Your task to perform on an android device: check the backup settings in the google photos Image 0: 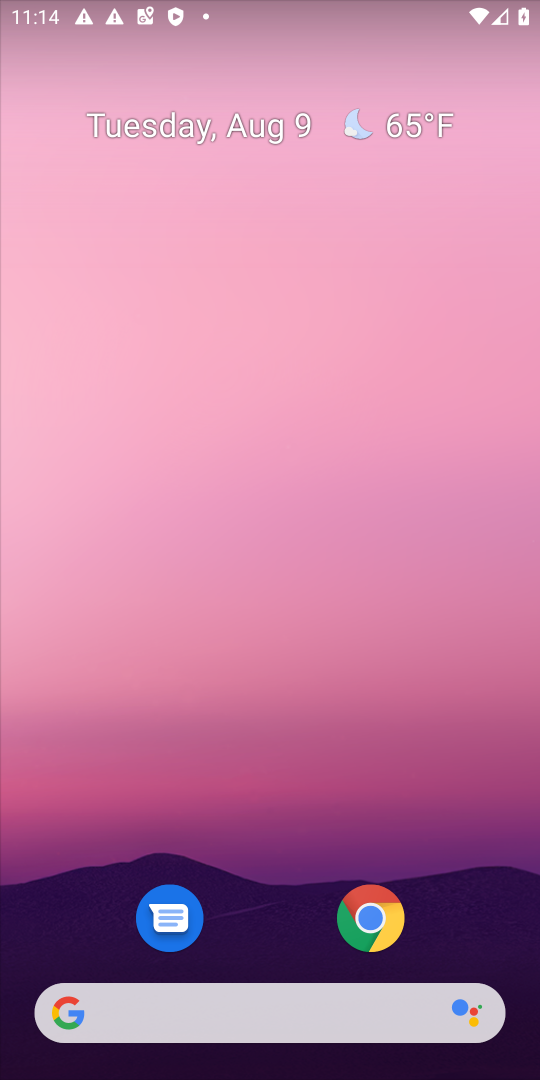
Step 0: drag from (253, 921) to (146, 118)
Your task to perform on an android device: check the backup settings in the google photos Image 1: 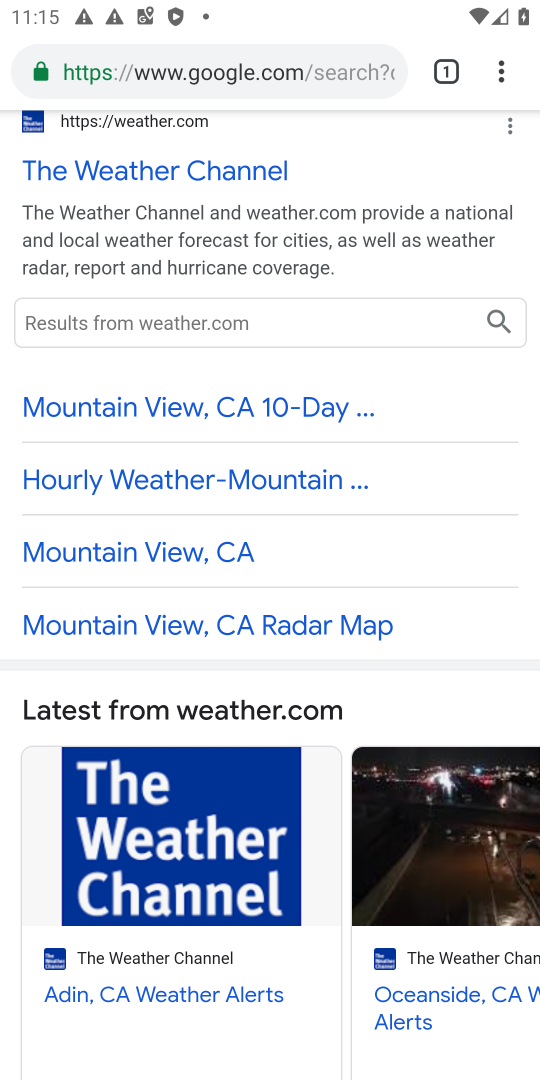
Step 1: press home button
Your task to perform on an android device: check the backup settings in the google photos Image 2: 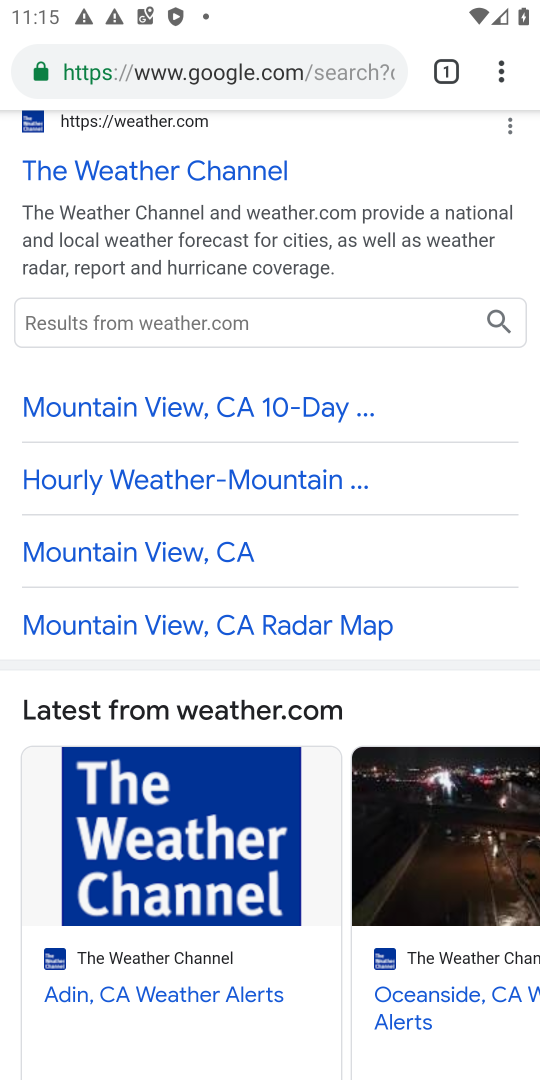
Step 2: press home button
Your task to perform on an android device: check the backup settings in the google photos Image 3: 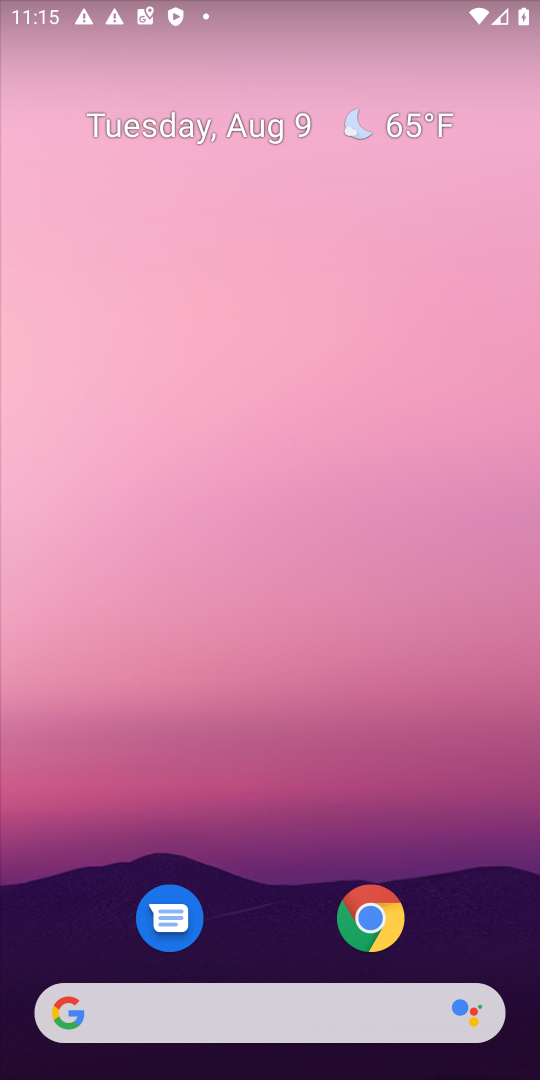
Step 3: drag from (243, 883) to (245, 329)
Your task to perform on an android device: check the backup settings in the google photos Image 4: 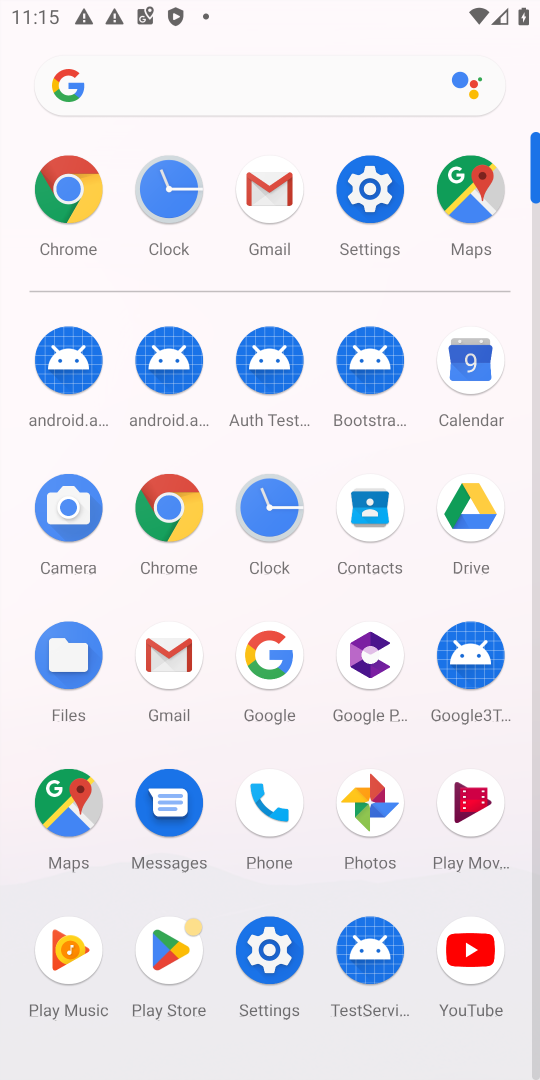
Step 4: click (367, 796)
Your task to perform on an android device: check the backup settings in the google photos Image 5: 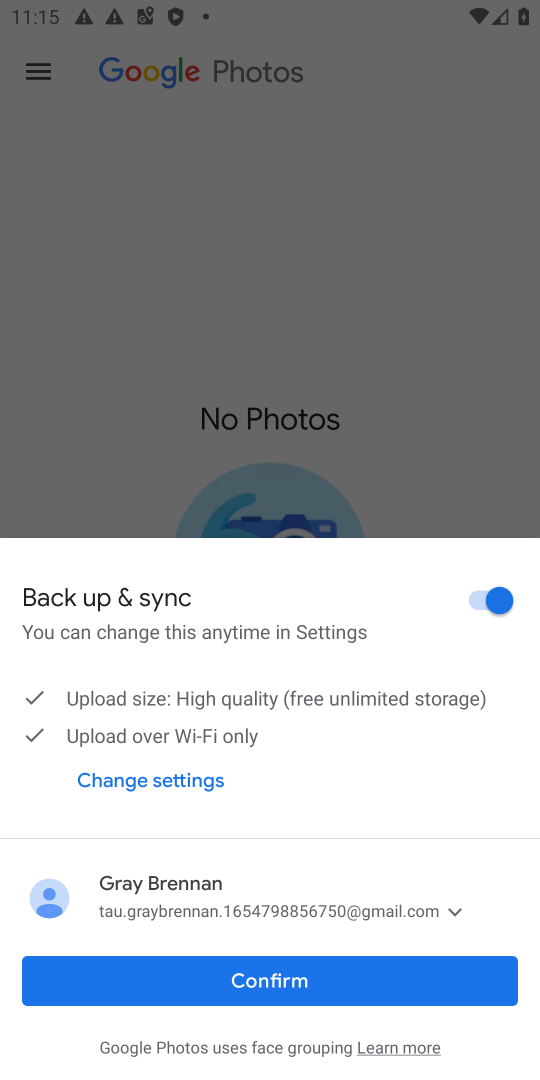
Step 5: click (313, 1001)
Your task to perform on an android device: check the backup settings in the google photos Image 6: 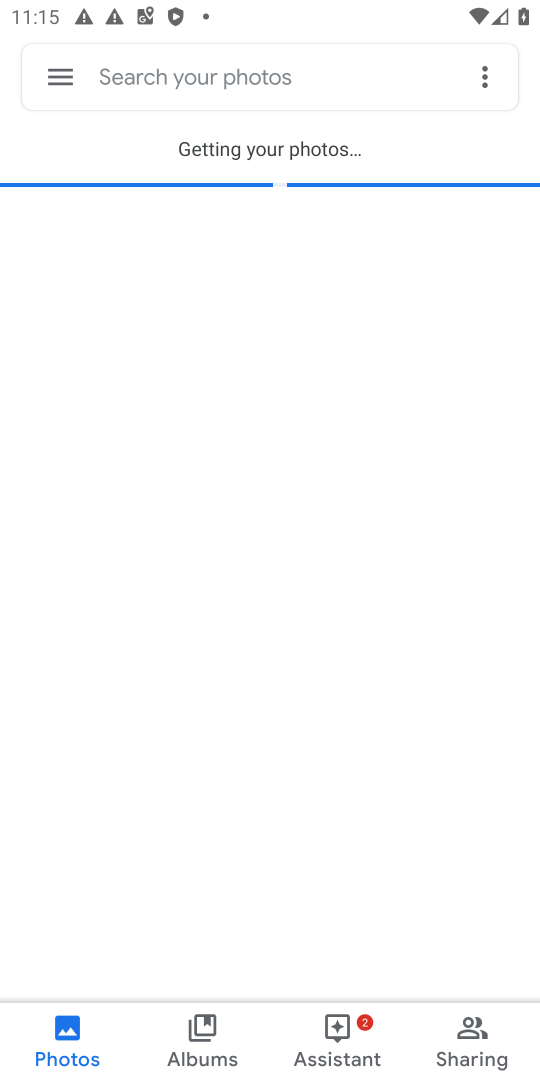
Step 6: click (51, 77)
Your task to perform on an android device: check the backup settings in the google photos Image 7: 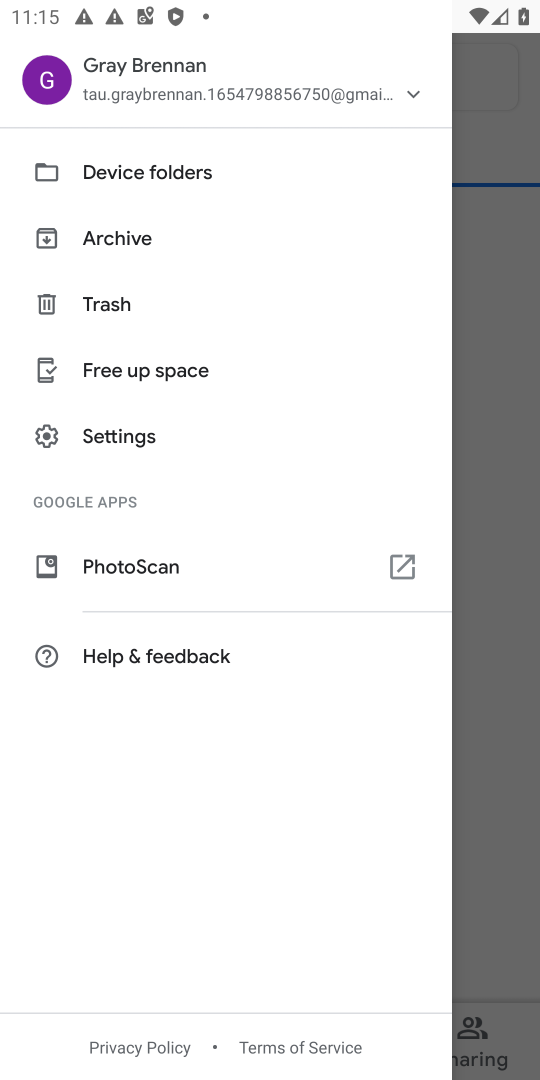
Step 7: click (146, 436)
Your task to perform on an android device: check the backup settings in the google photos Image 8: 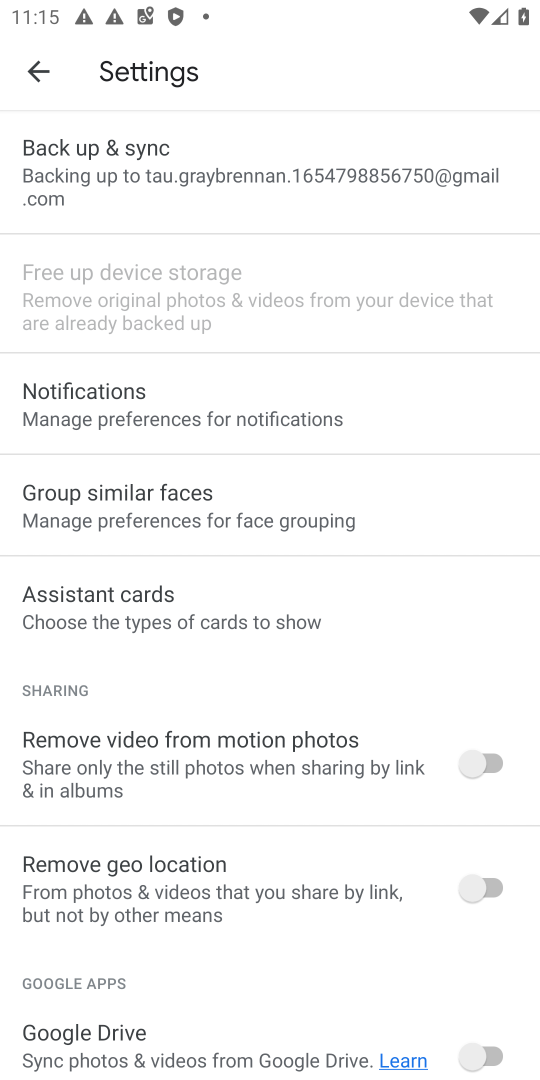
Step 8: click (233, 165)
Your task to perform on an android device: check the backup settings in the google photos Image 9: 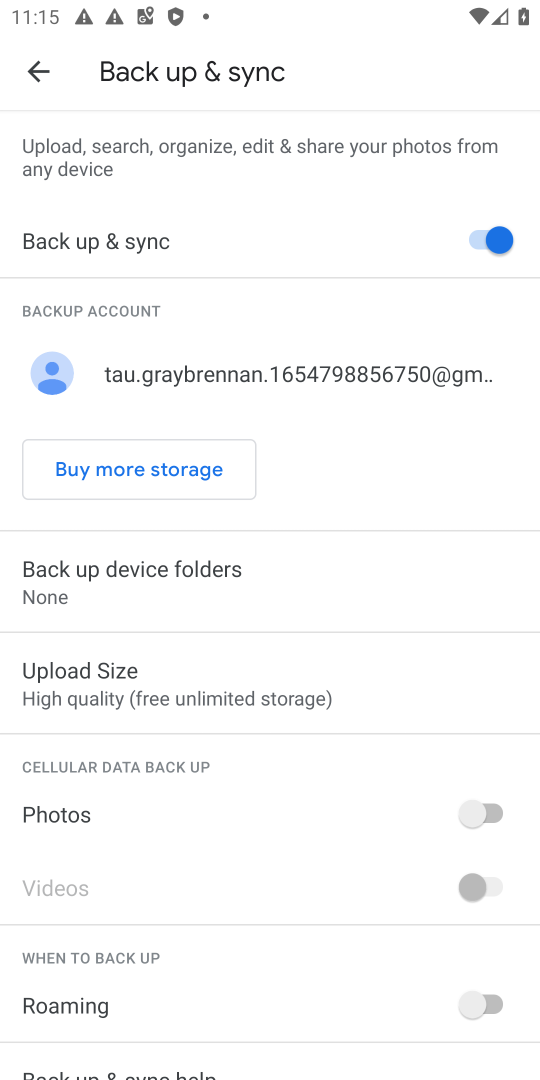
Step 9: task complete